Your task to perform on an android device: change the clock display to analog Image 0: 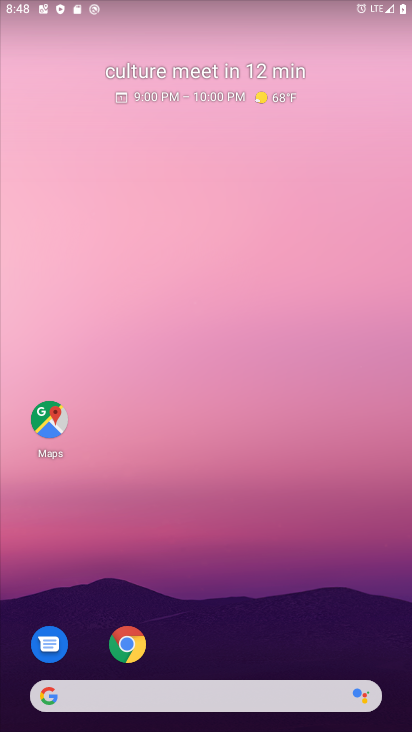
Step 0: drag from (204, 713) to (194, 259)
Your task to perform on an android device: change the clock display to analog Image 1: 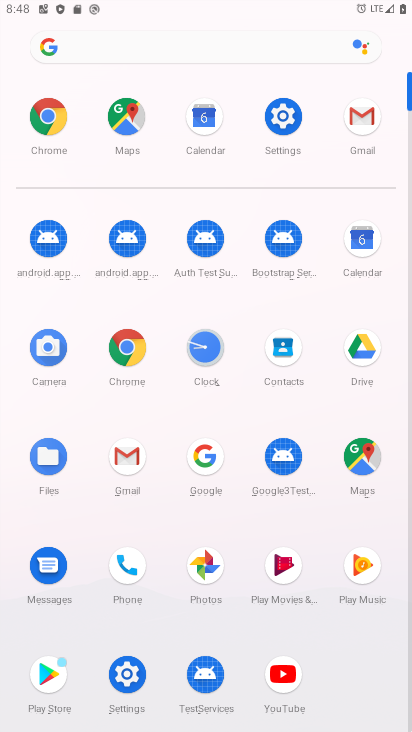
Step 1: click (204, 345)
Your task to perform on an android device: change the clock display to analog Image 2: 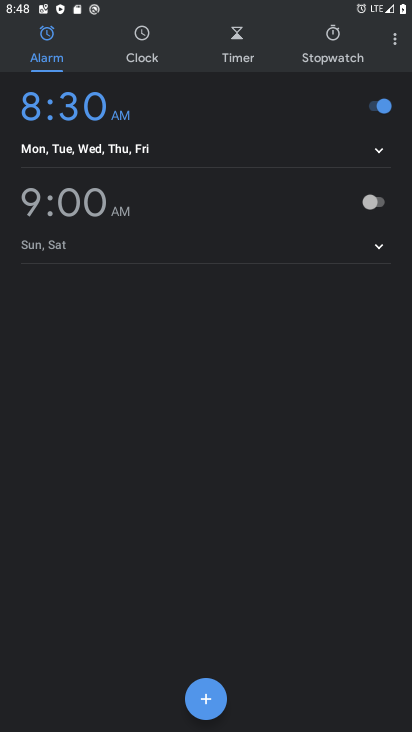
Step 2: click (405, 44)
Your task to perform on an android device: change the clock display to analog Image 3: 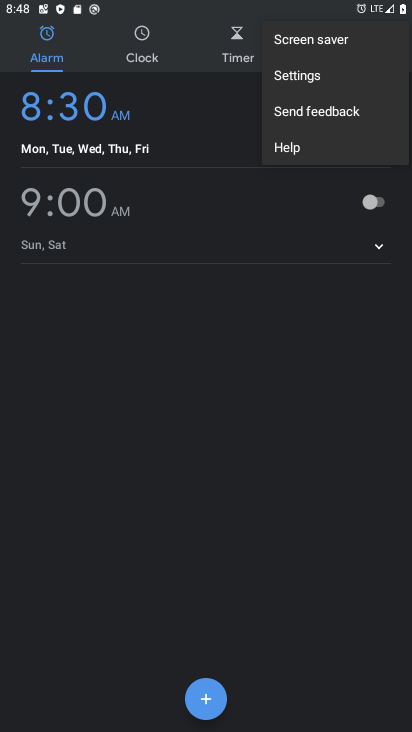
Step 3: click (297, 85)
Your task to perform on an android device: change the clock display to analog Image 4: 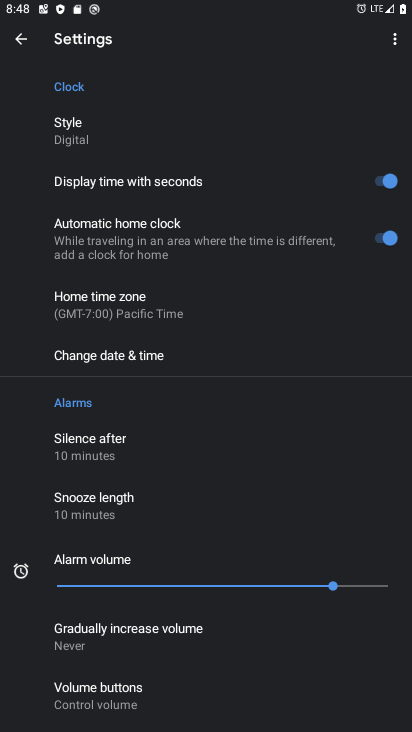
Step 4: click (144, 140)
Your task to perform on an android device: change the clock display to analog Image 5: 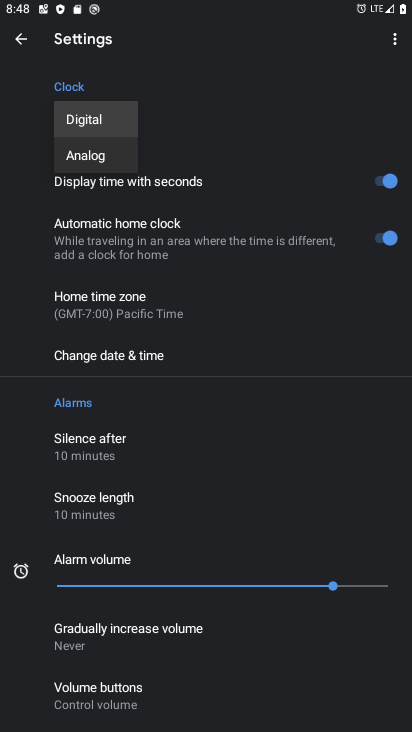
Step 5: click (125, 154)
Your task to perform on an android device: change the clock display to analog Image 6: 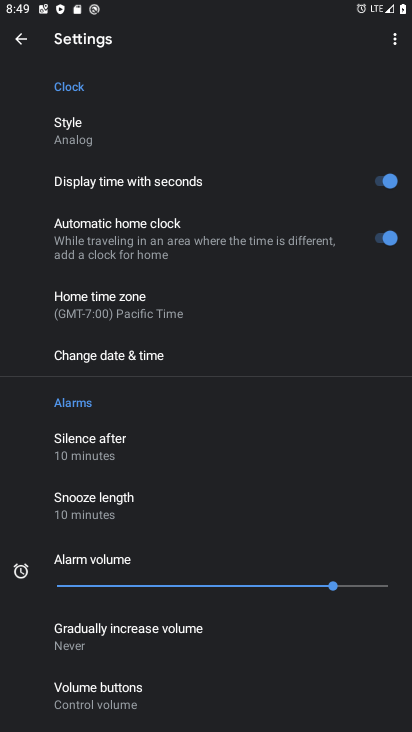
Step 6: task complete